Your task to perform on an android device: Open Youtube and go to "Your channel" Image 0: 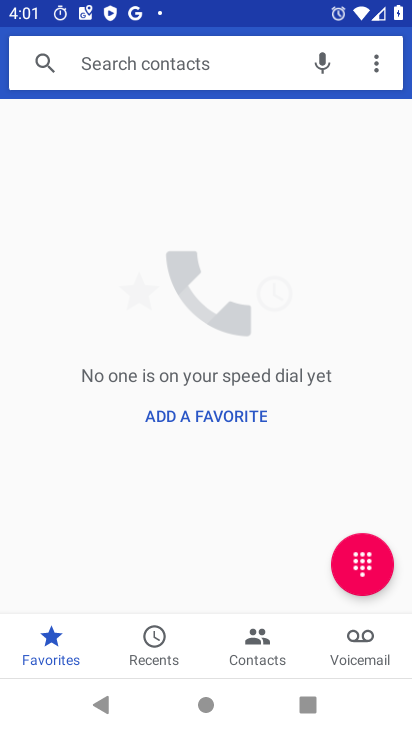
Step 0: press home button
Your task to perform on an android device: Open Youtube and go to "Your channel" Image 1: 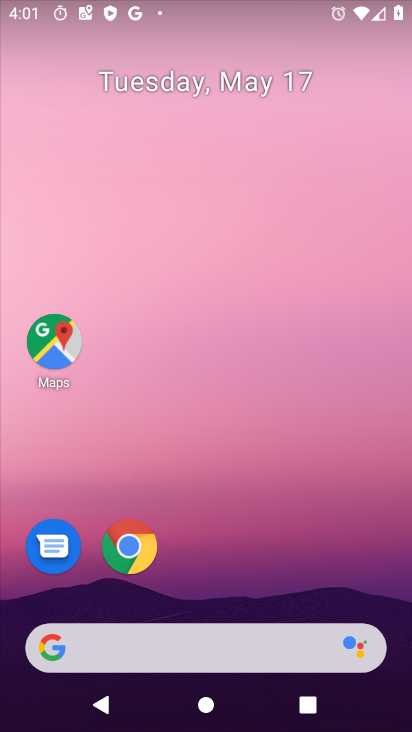
Step 1: click (365, 233)
Your task to perform on an android device: Open Youtube and go to "Your channel" Image 2: 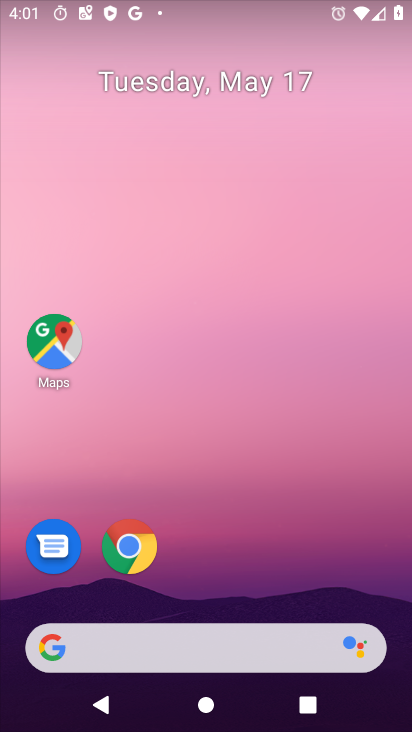
Step 2: drag from (393, 660) to (337, 277)
Your task to perform on an android device: Open Youtube and go to "Your channel" Image 3: 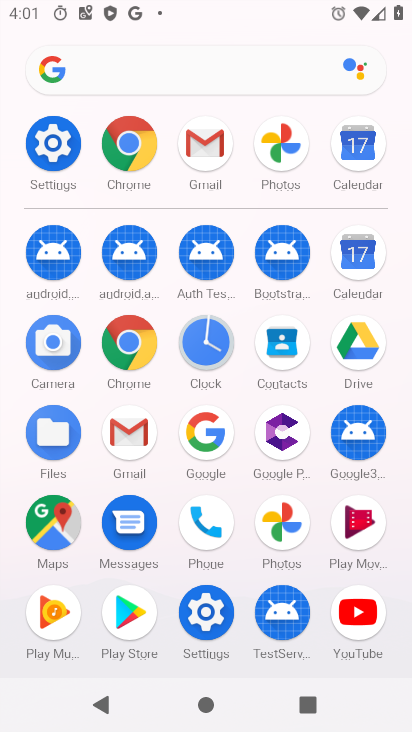
Step 3: click (350, 619)
Your task to perform on an android device: Open Youtube and go to "Your channel" Image 4: 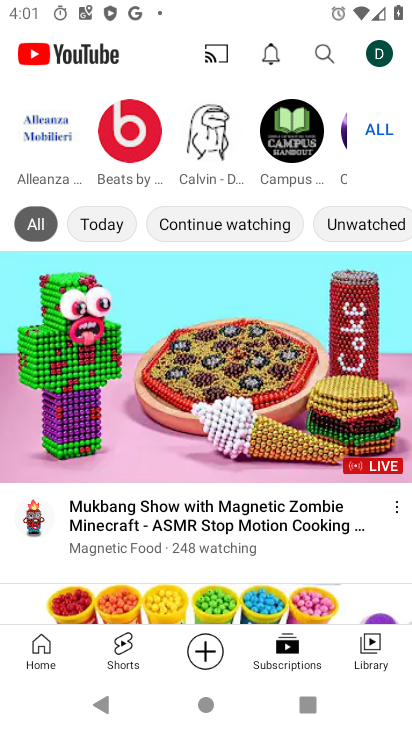
Step 4: click (385, 53)
Your task to perform on an android device: Open Youtube and go to "Your channel" Image 5: 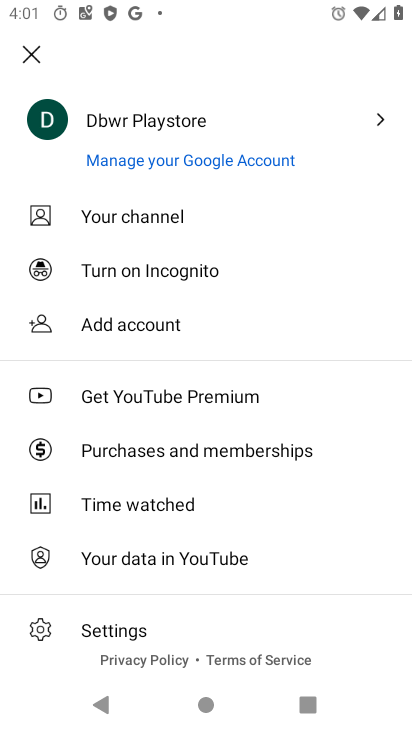
Step 5: click (96, 215)
Your task to perform on an android device: Open Youtube and go to "Your channel" Image 6: 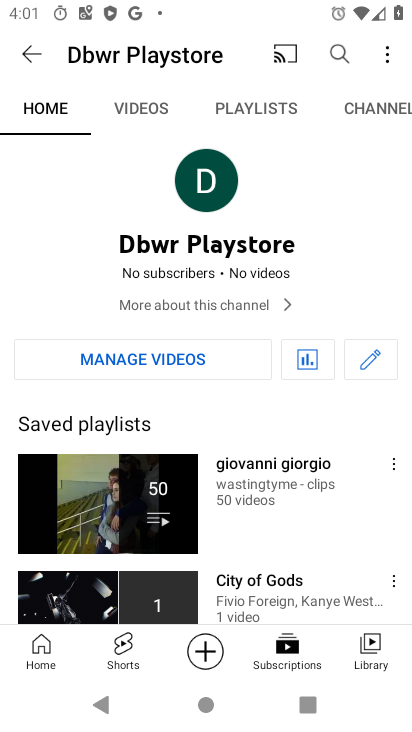
Step 6: task complete